Your task to perform on an android device: turn off sleep mode Image 0: 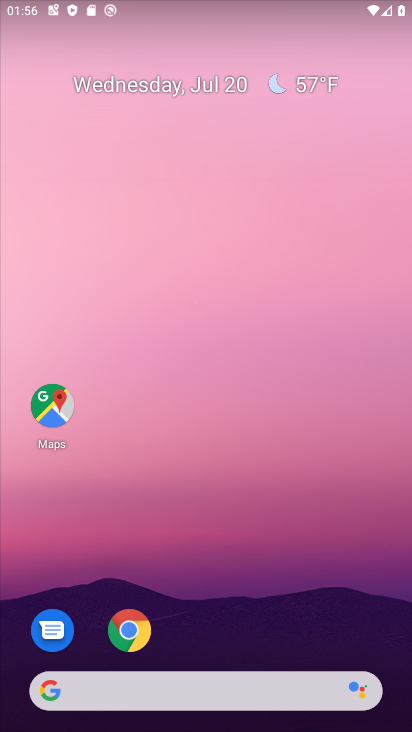
Step 0: drag from (337, 605) to (396, 112)
Your task to perform on an android device: turn off sleep mode Image 1: 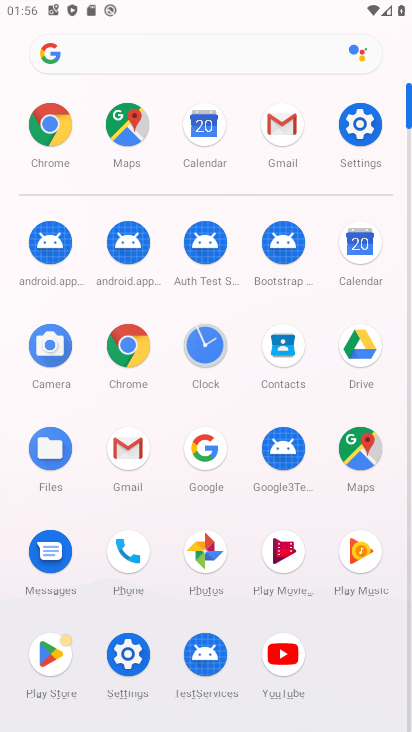
Step 1: click (375, 127)
Your task to perform on an android device: turn off sleep mode Image 2: 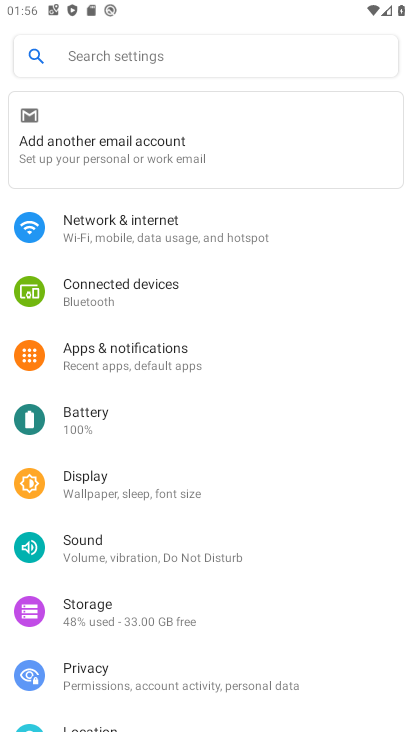
Step 2: click (86, 491)
Your task to perform on an android device: turn off sleep mode Image 3: 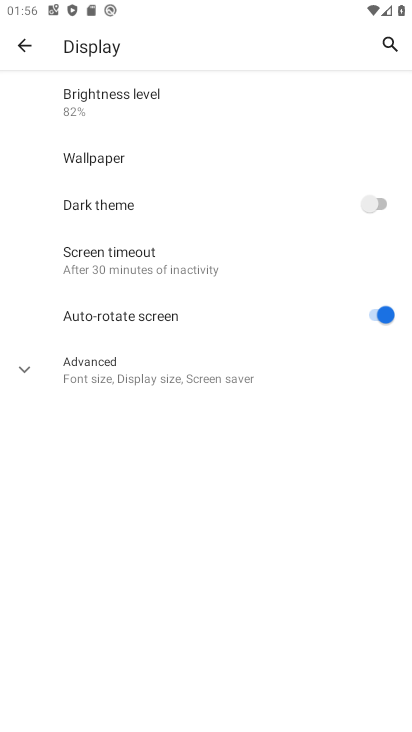
Step 3: click (163, 266)
Your task to perform on an android device: turn off sleep mode Image 4: 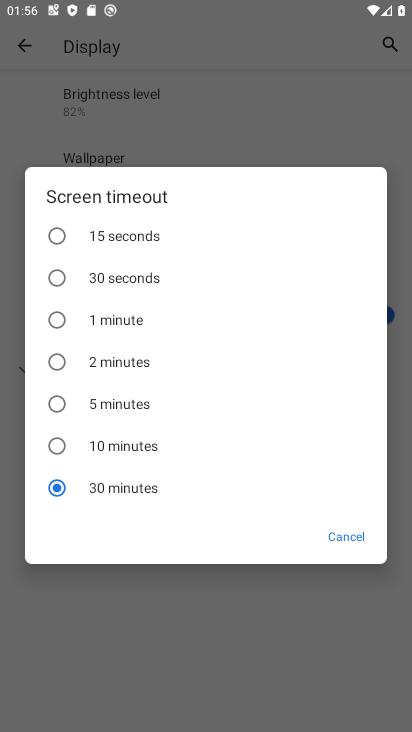
Step 4: task complete